Your task to perform on an android device: see creations saved in the google photos Image 0: 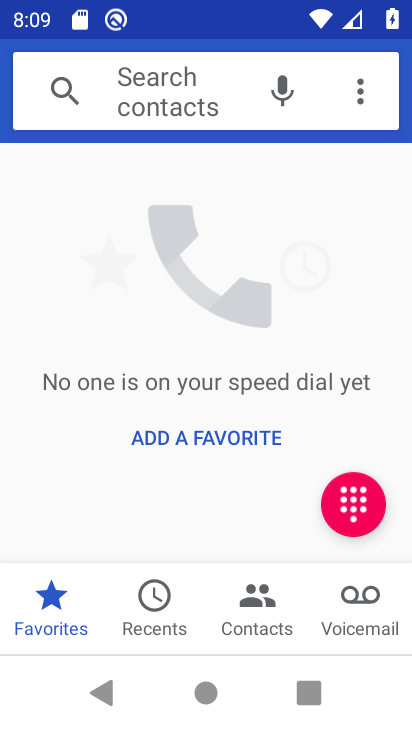
Step 0: press home button
Your task to perform on an android device: see creations saved in the google photos Image 1: 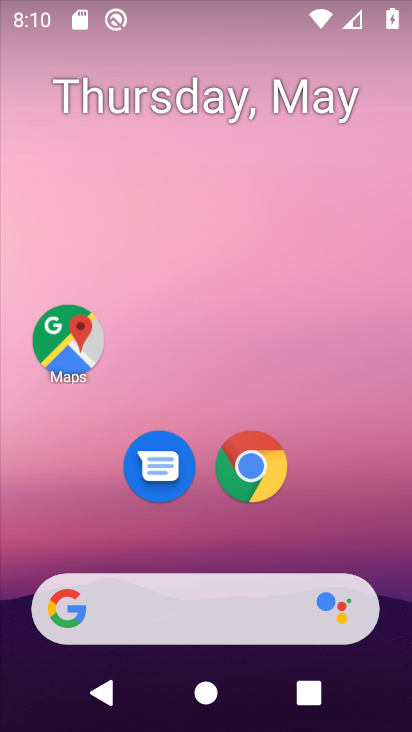
Step 1: drag from (376, 520) to (363, 67)
Your task to perform on an android device: see creations saved in the google photos Image 2: 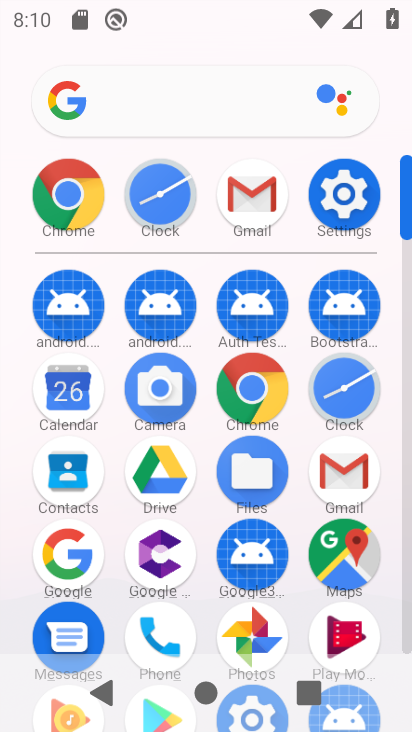
Step 2: click (266, 615)
Your task to perform on an android device: see creations saved in the google photos Image 3: 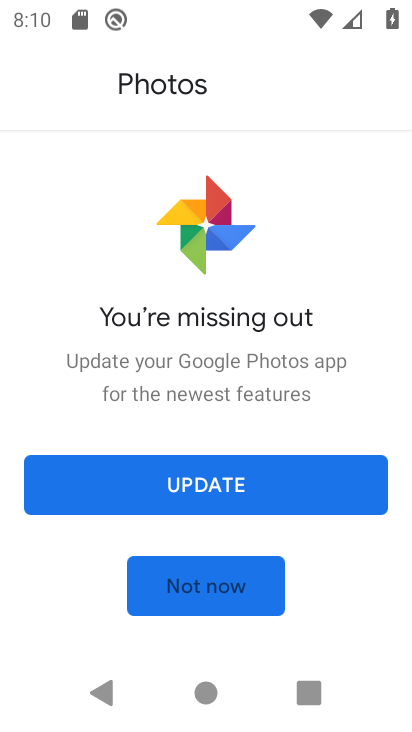
Step 3: click (231, 493)
Your task to perform on an android device: see creations saved in the google photos Image 4: 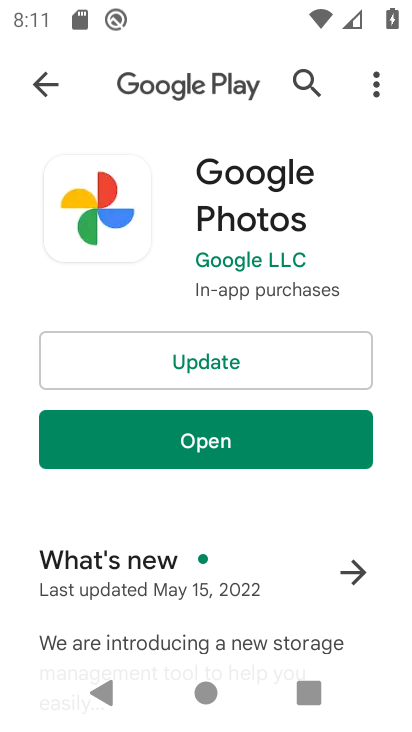
Step 4: click (222, 348)
Your task to perform on an android device: see creations saved in the google photos Image 5: 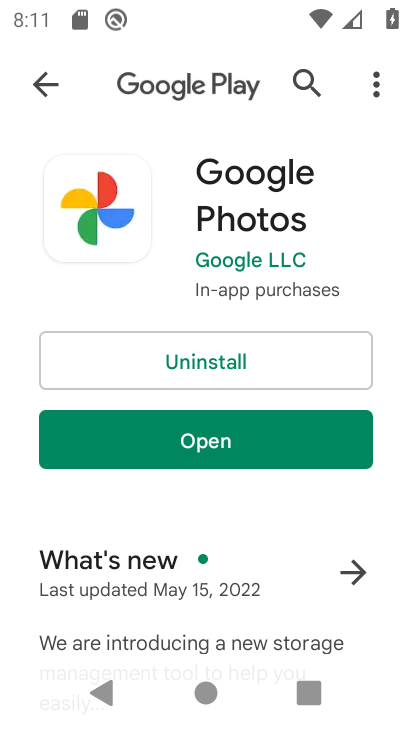
Step 5: click (202, 458)
Your task to perform on an android device: see creations saved in the google photos Image 6: 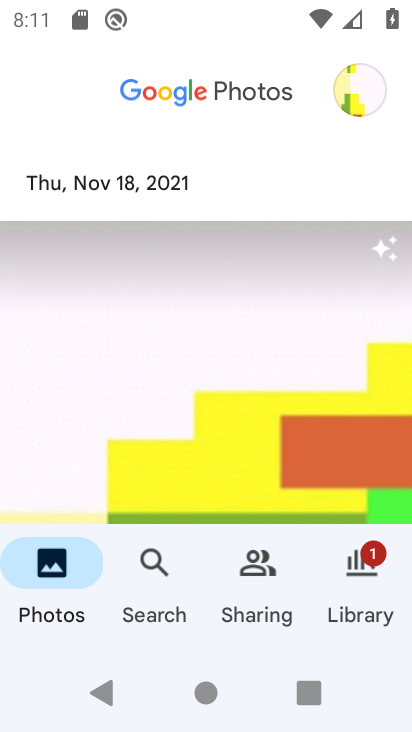
Step 6: click (364, 551)
Your task to perform on an android device: see creations saved in the google photos Image 7: 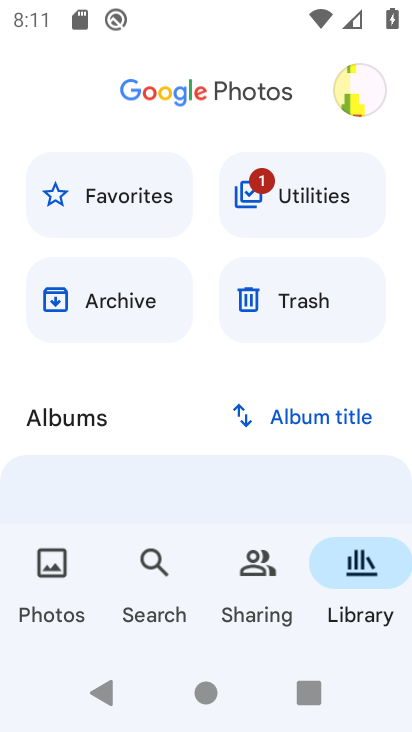
Step 7: click (122, 284)
Your task to perform on an android device: see creations saved in the google photos Image 8: 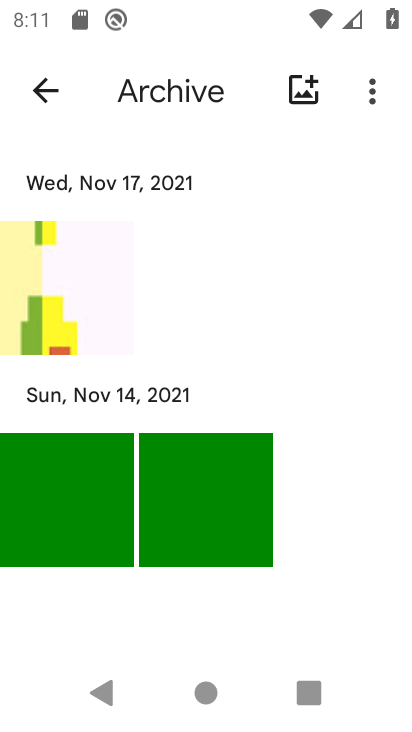
Step 8: task complete